Your task to perform on an android device: Search for a 3d printer on aliexpress Image 0: 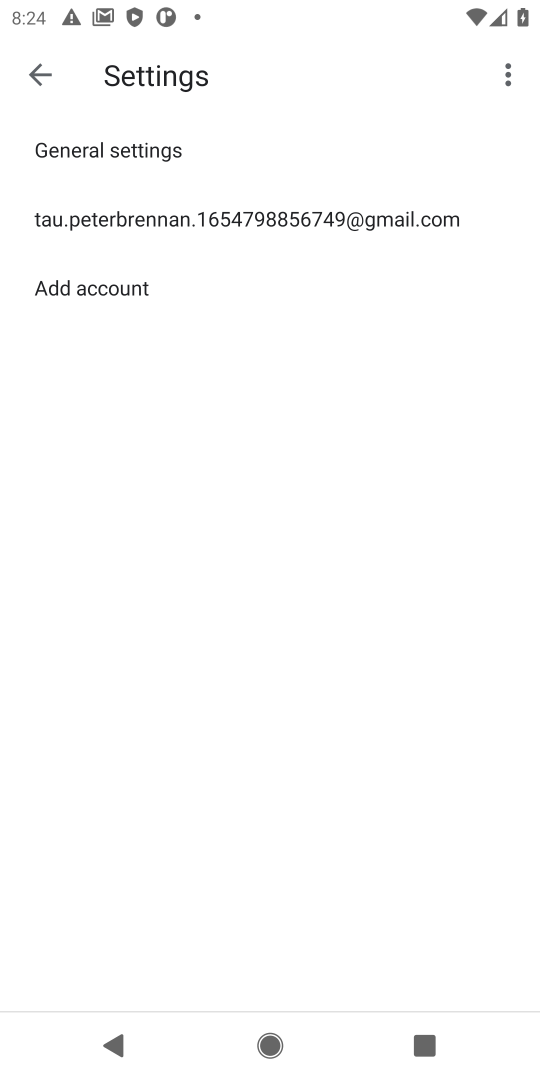
Step 0: press home button
Your task to perform on an android device: Search for a 3d printer on aliexpress Image 1: 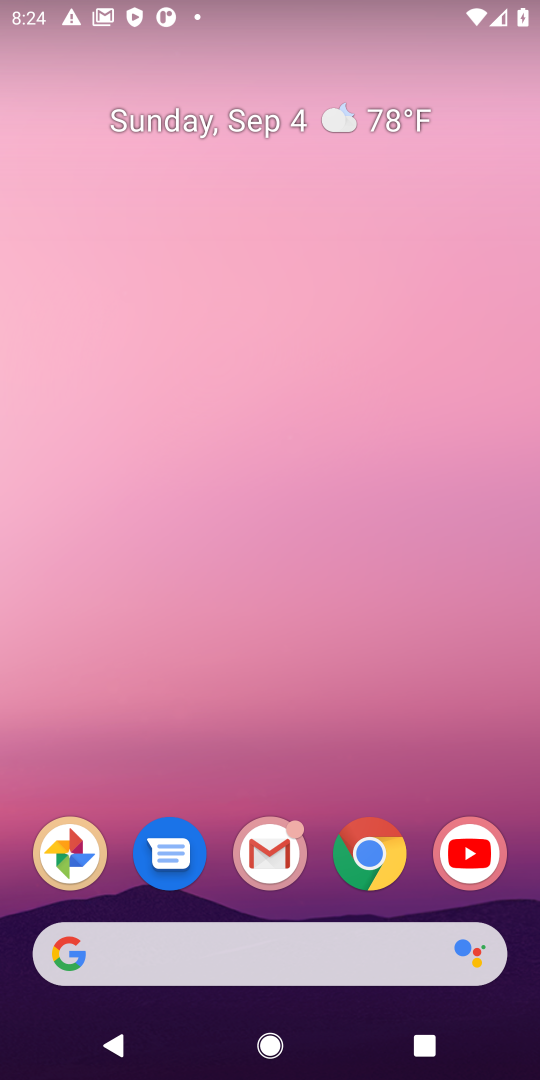
Step 1: drag from (314, 642) to (363, 0)
Your task to perform on an android device: Search for a 3d printer on aliexpress Image 2: 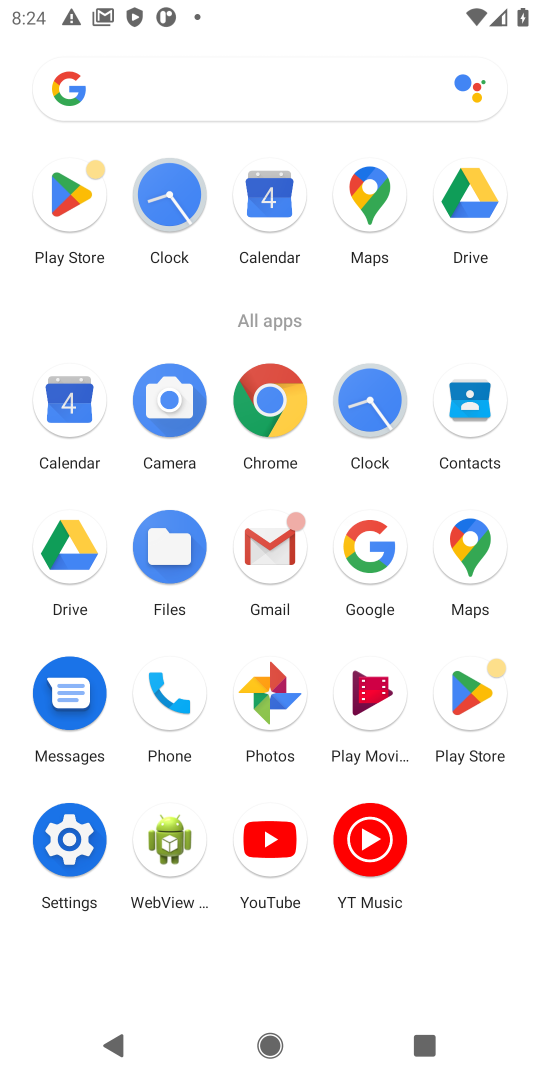
Step 2: click (265, 398)
Your task to perform on an android device: Search for a 3d printer on aliexpress Image 3: 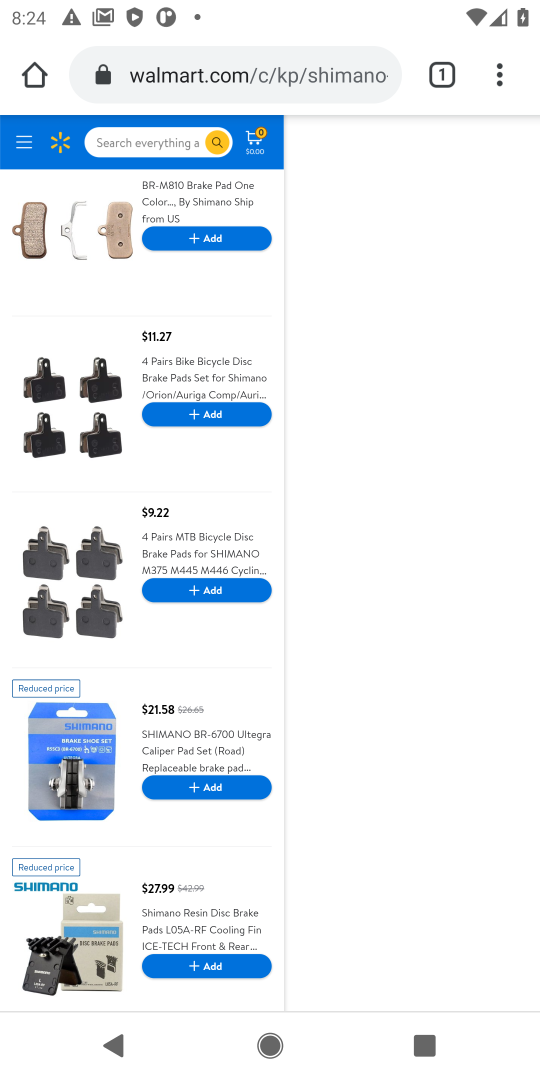
Step 3: click (434, 63)
Your task to perform on an android device: Search for a 3d printer on aliexpress Image 4: 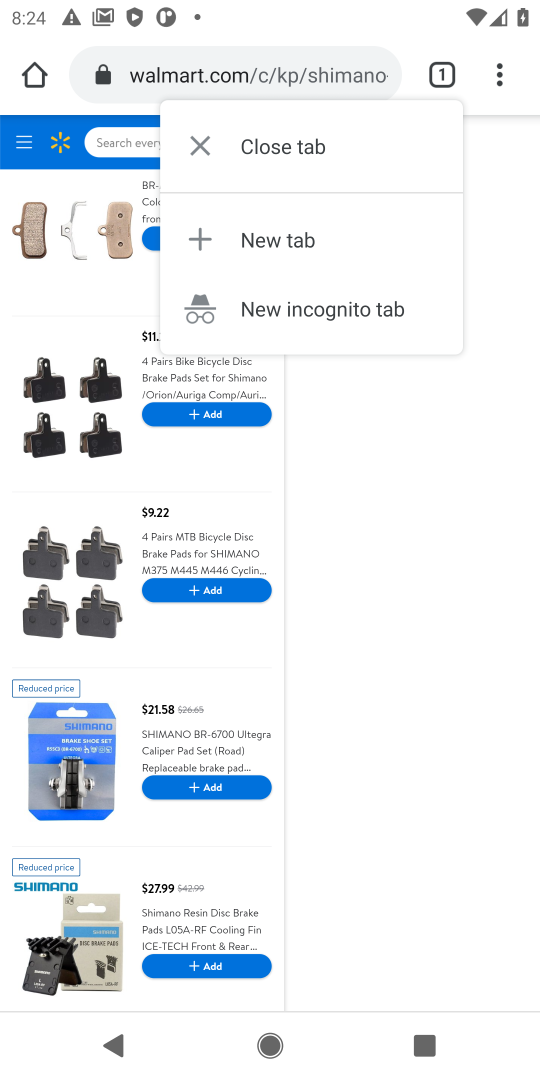
Step 4: click (255, 227)
Your task to perform on an android device: Search for a 3d printer on aliexpress Image 5: 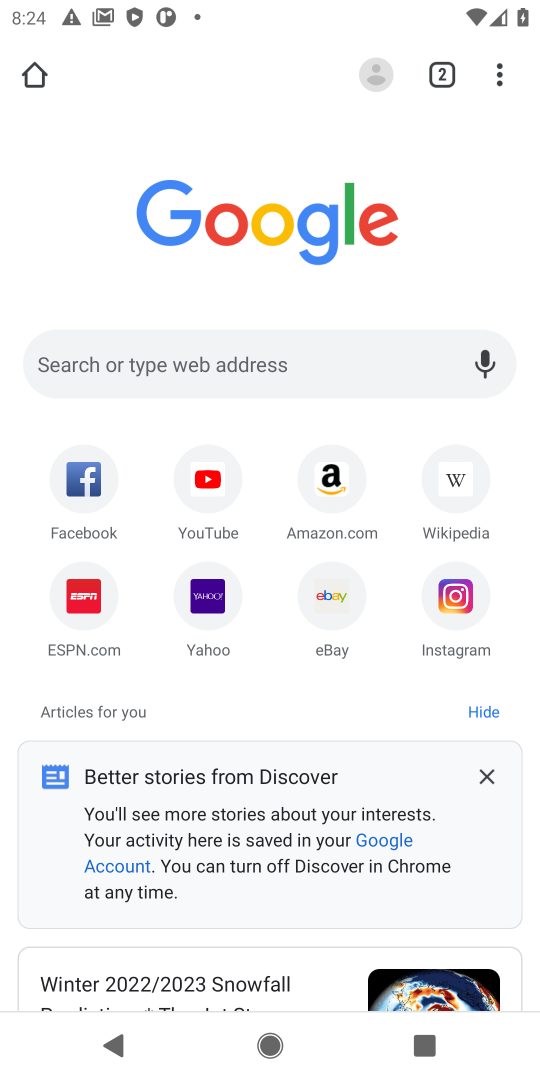
Step 5: click (136, 356)
Your task to perform on an android device: Search for a 3d printer on aliexpress Image 6: 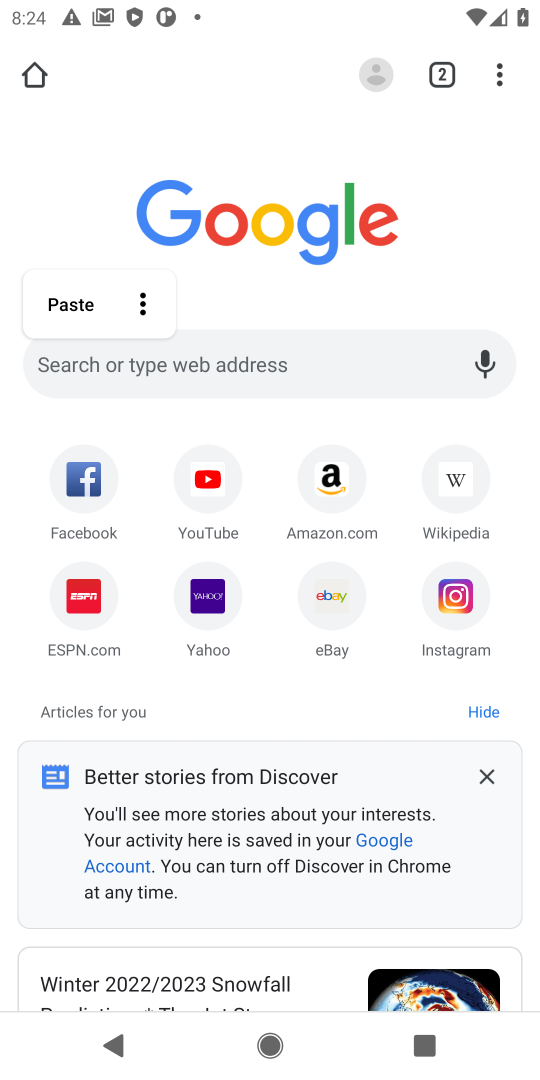
Step 6: type "3d printer on aliexpress"
Your task to perform on an android device: Search for a 3d printer on aliexpress Image 7: 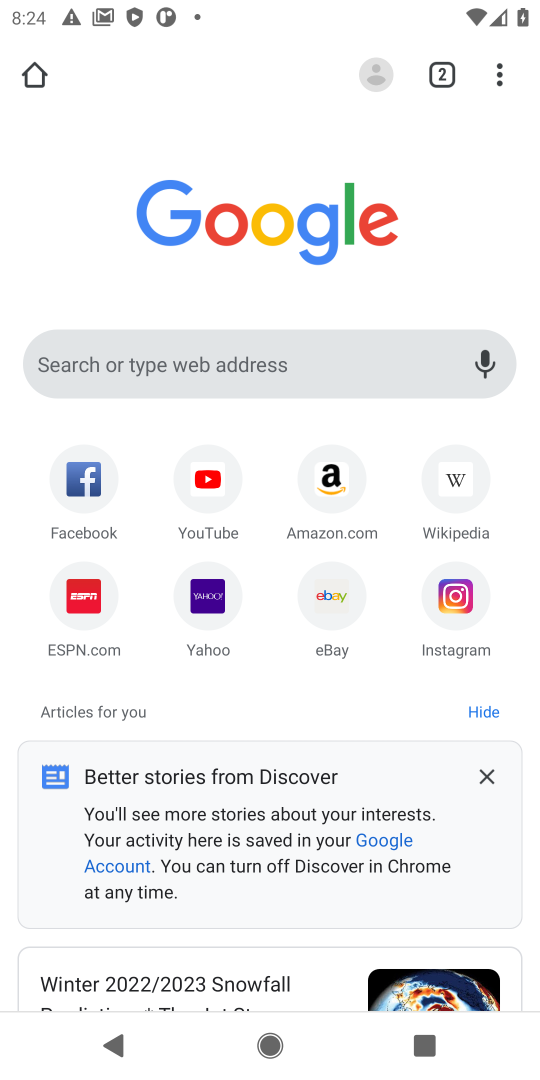
Step 7: click (95, 358)
Your task to perform on an android device: Search for a 3d printer on aliexpress Image 8: 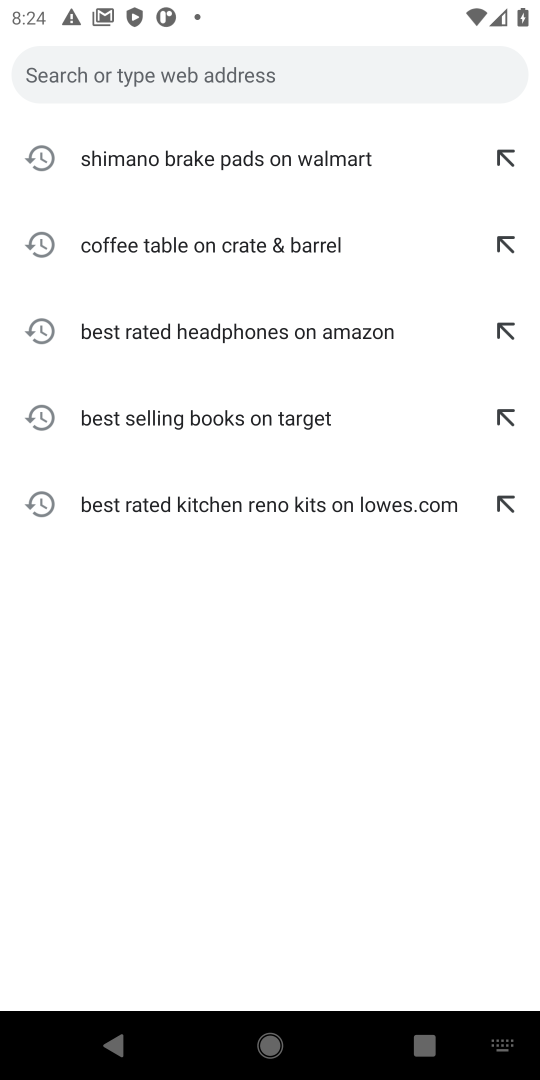
Step 8: type "3d printer on aliexpress"
Your task to perform on an android device: Search for a 3d printer on aliexpress Image 9: 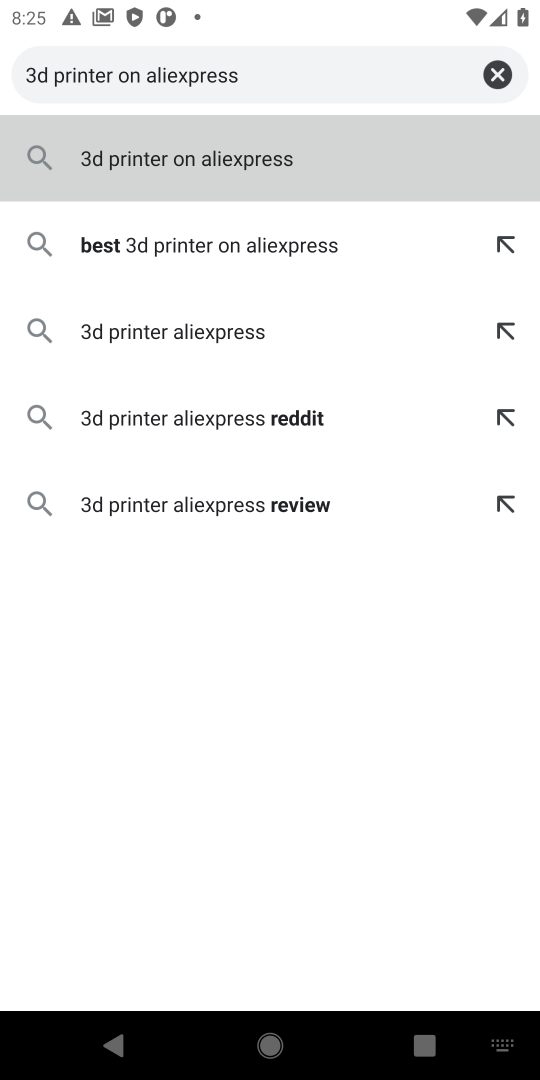
Step 9: click (182, 171)
Your task to perform on an android device: Search for a 3d printer on aliexpress Image 10: 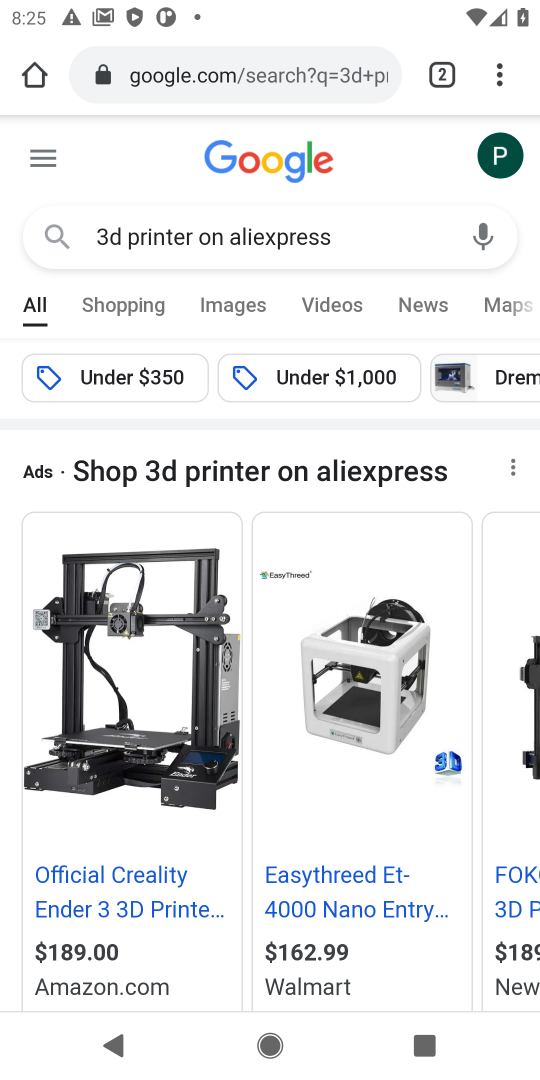
Step 10: drag from (231, 858) to (246, 269)
Your task to perform on an android device: Search for a 3d printer on aliexpress Image 11: 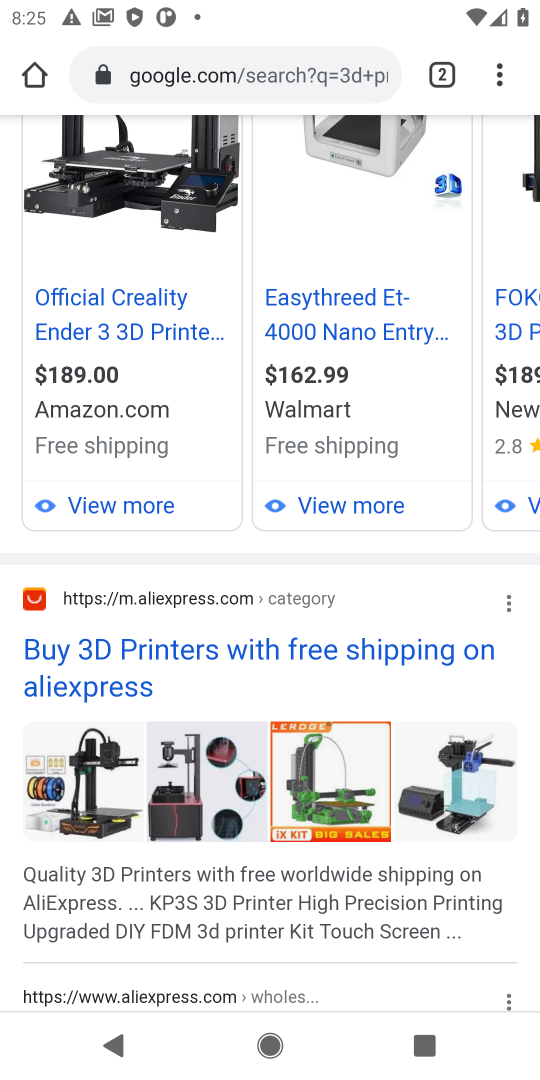
Step 11: click (174, 647)
Your task to perform on an android device: Search for a 3d printer on aliexpress Image 12: 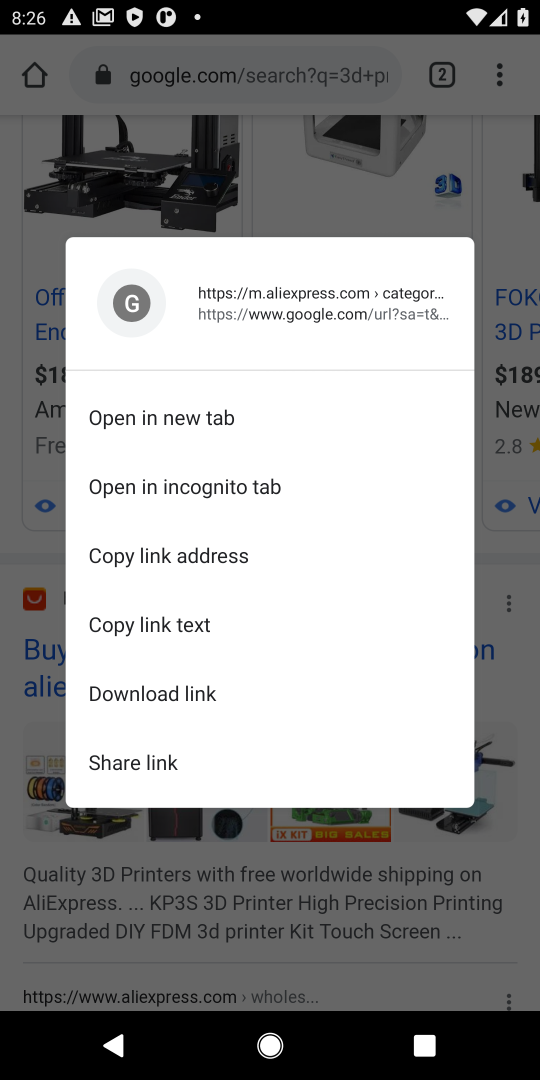
Step 12: click (175, 969)
Your task to perform on an android device: Search for a 3d printer on aliexpress Image 13: 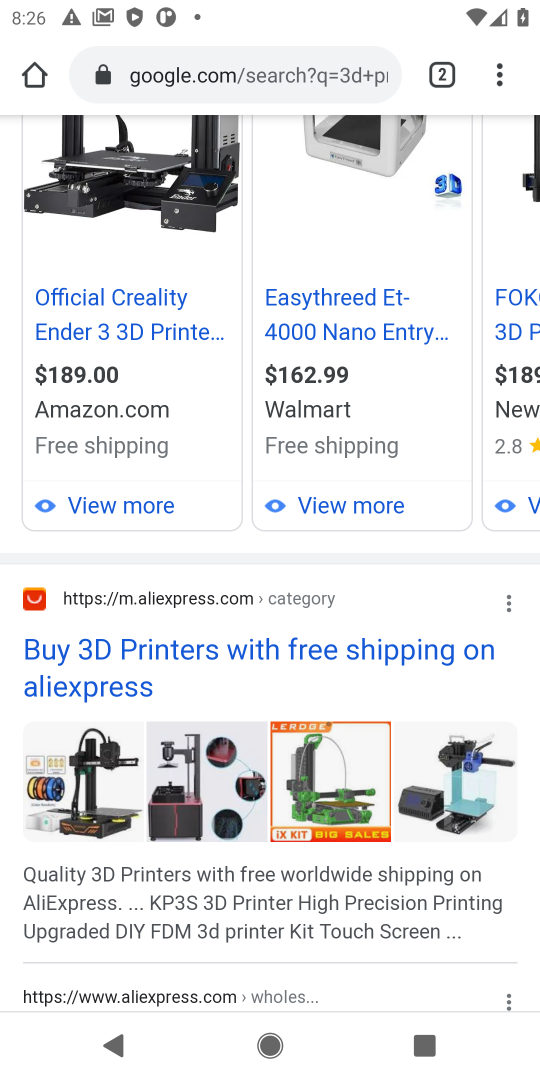
Step 13: click (56, 650)
Your task to perform on an android device: Search for a 3d printer on aliexpress Image 14: 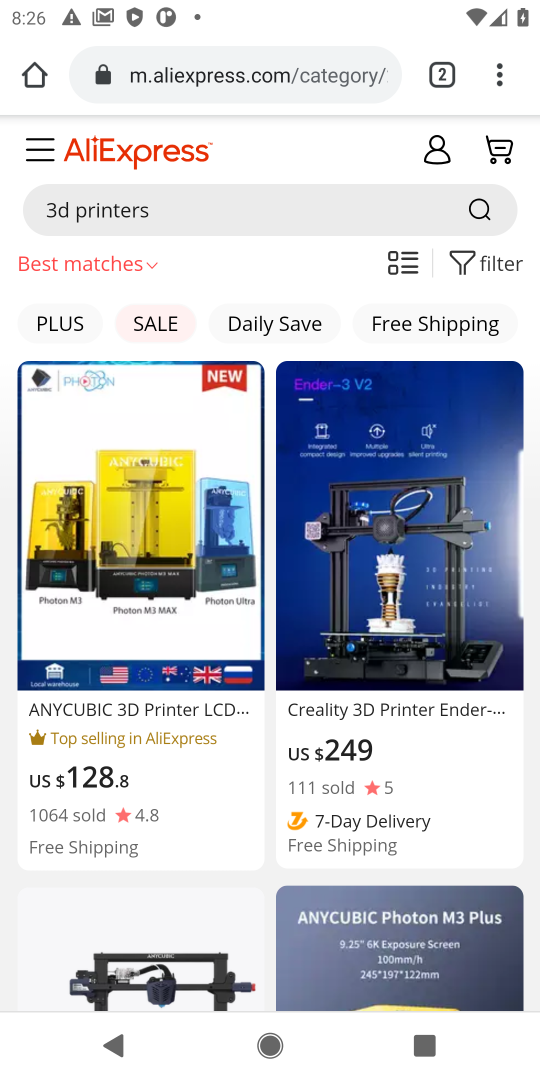
Step 14: drag from (254, 962) to (278, 350)
Your task to perform on an android device: Search for a 3d printer on aliexpress Image 15: 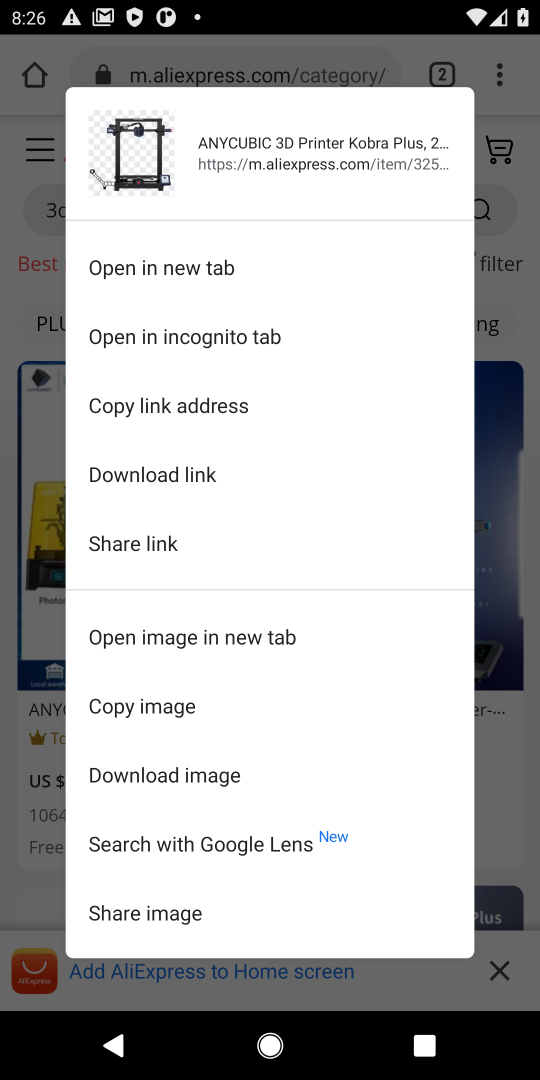
Step 15: click (13, 706)
Your task to perform on an android device: Search for a 3d printer on aliexpress Image 16: 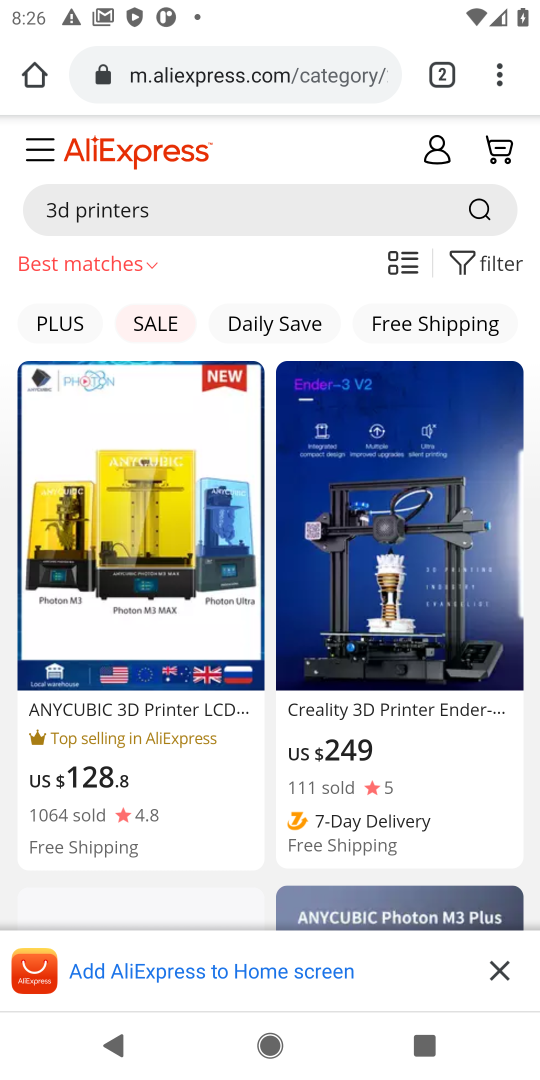
Step 16: drag from (270, 648) to (266, 313)
Your task to perform on an android device: Search for a 3d printer on aliexpress Image 17: 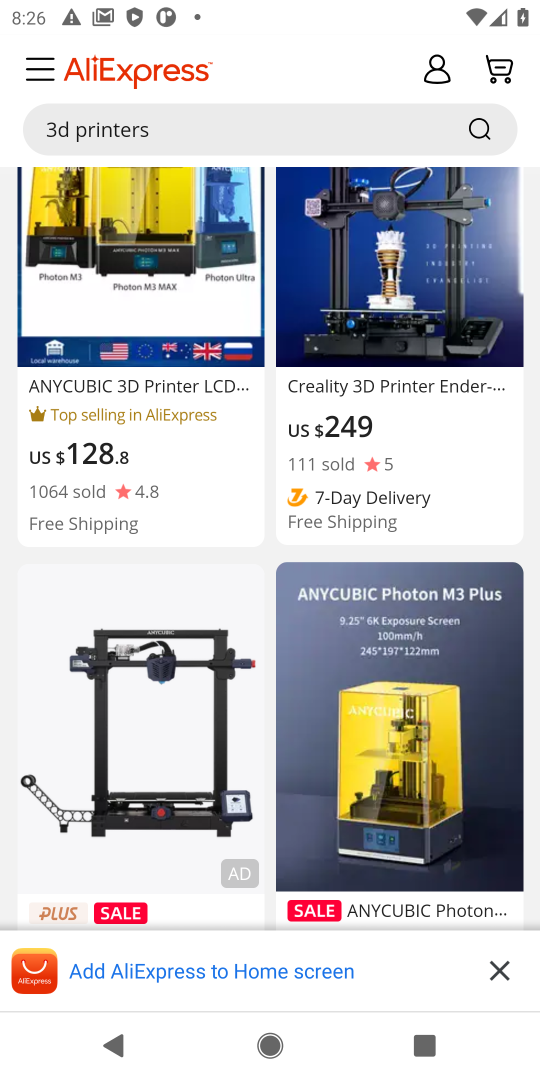
Step 17: drag from (262, 769) to (238, 594)
Your task to perform on an android device: Search for a 3d printer on aliexpress Image 18: 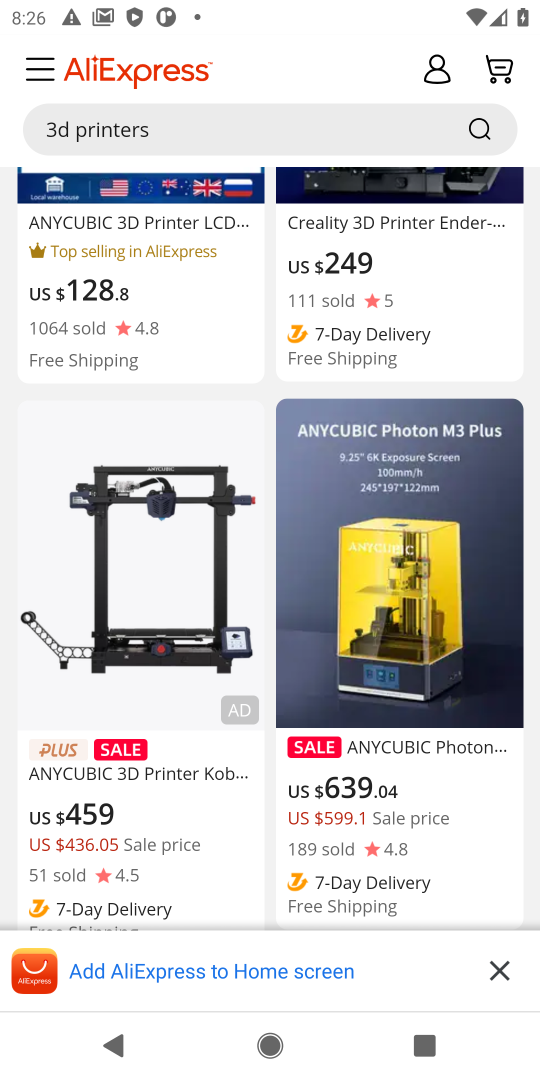
Step 18: drag from (266, 837) to (234, 310)
Your task to perform on an android device: Search for a 3d printer on aliexpress Image 19: 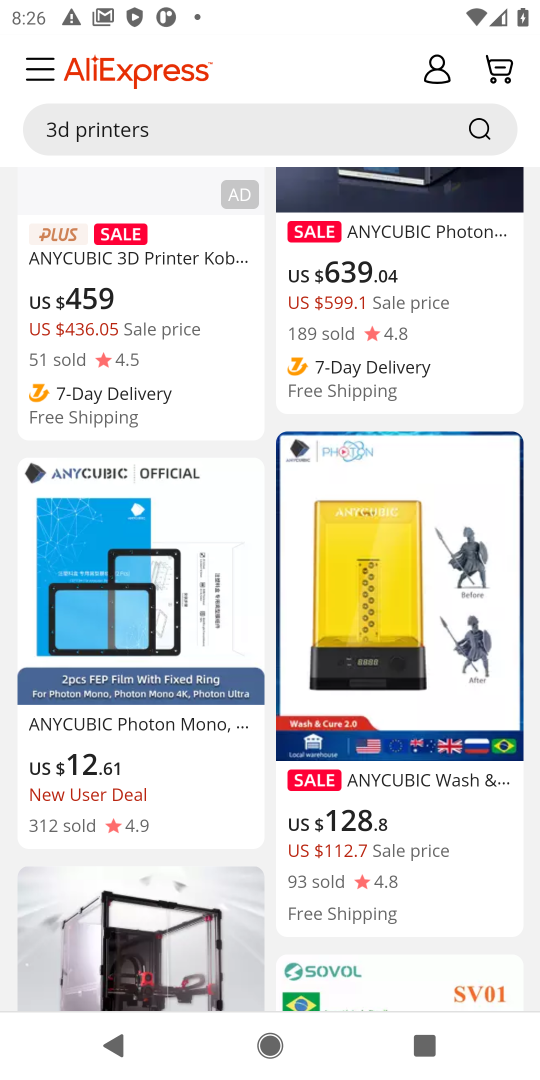
Step 19: drag from (266, 321) to (299, 1002)
Your task to perform on an android device: Search for a 3d printer on aliexpress Image 20: 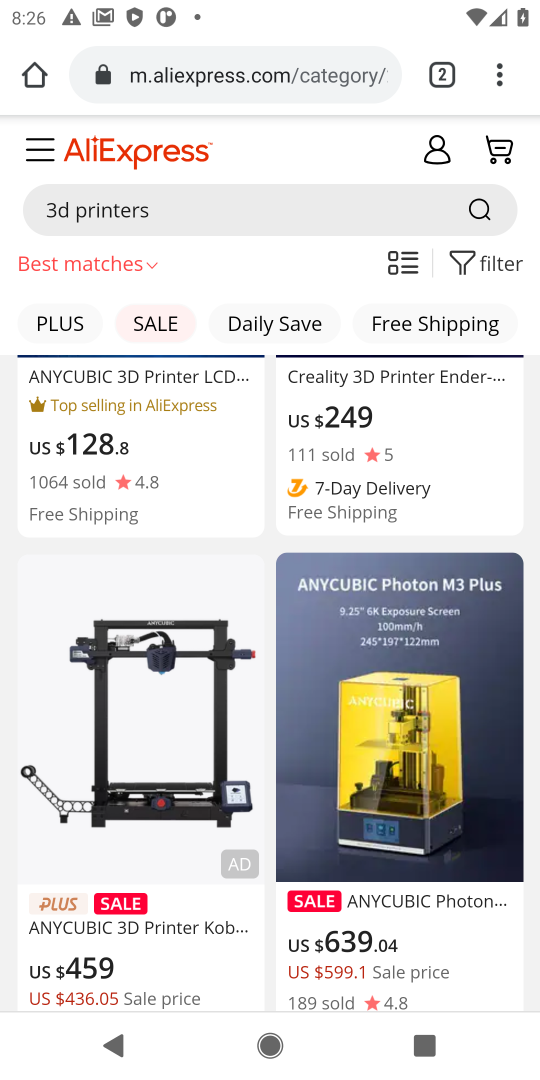
Step 20: click (473, 206)
Your task to perform on an android device: Search for a 3d printer on aliexpress Image 21: 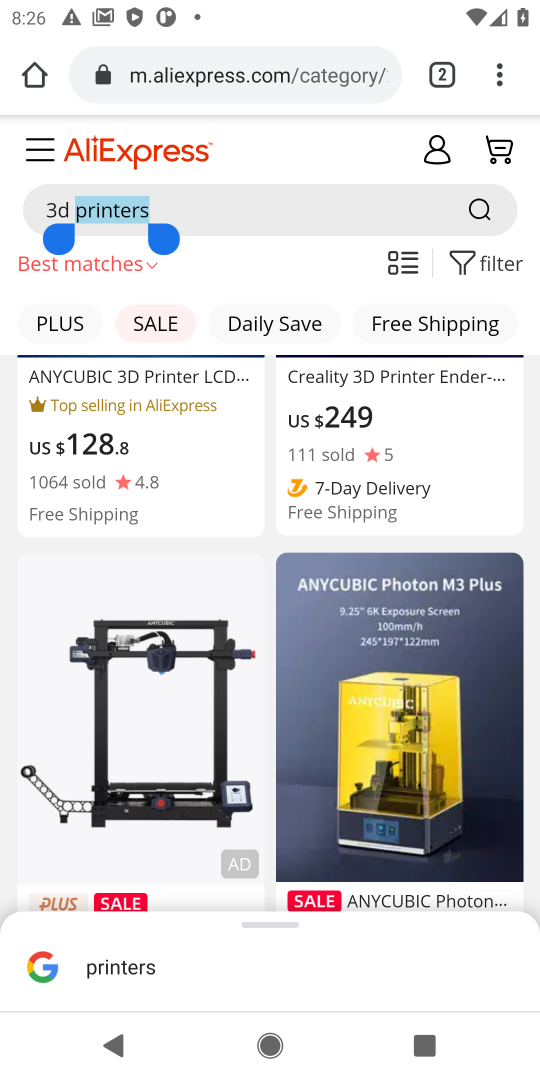
Step 21: click (168, 214)
Your task to perform on an android device: Search for a 3d printer on aliexpress Image 22: 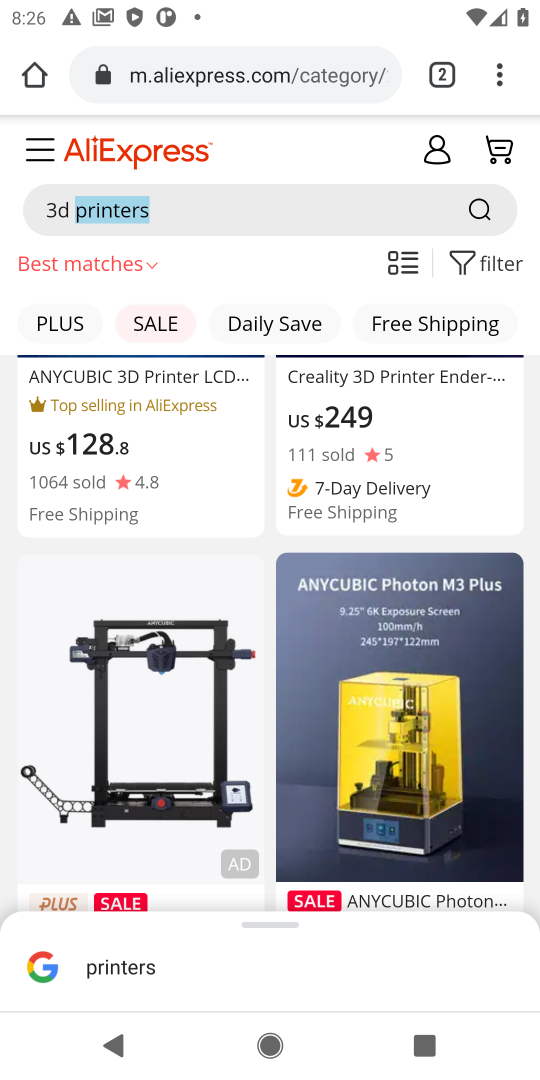
Step 22: click (477, 205)
Your task to perform on an android device: Search for a 3d printer on aliexpress Image 23: 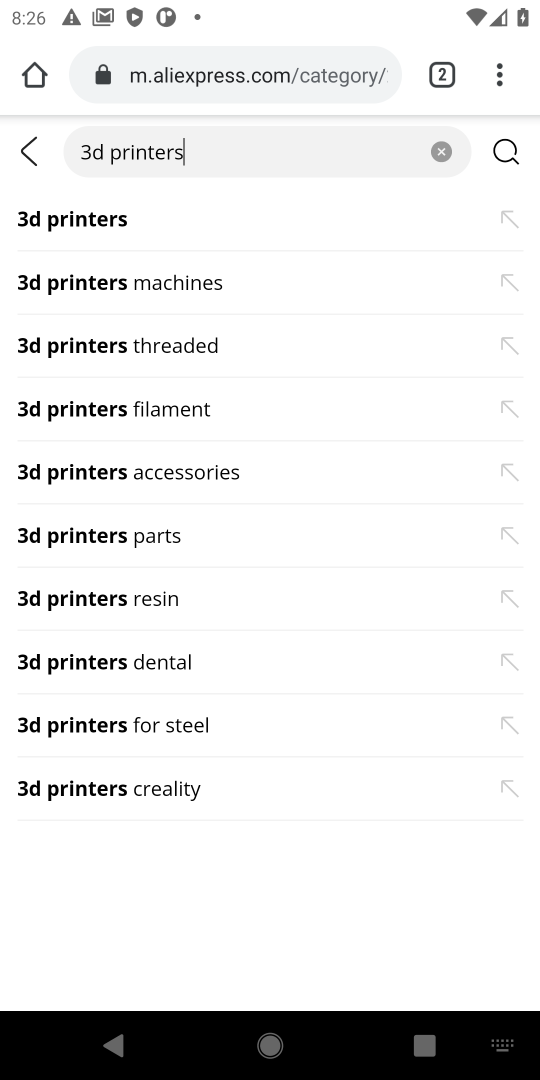
Step 23: click (118, 216)
Your task to perform on an android device: Search for a 3d printer on aliexpress Image 24: 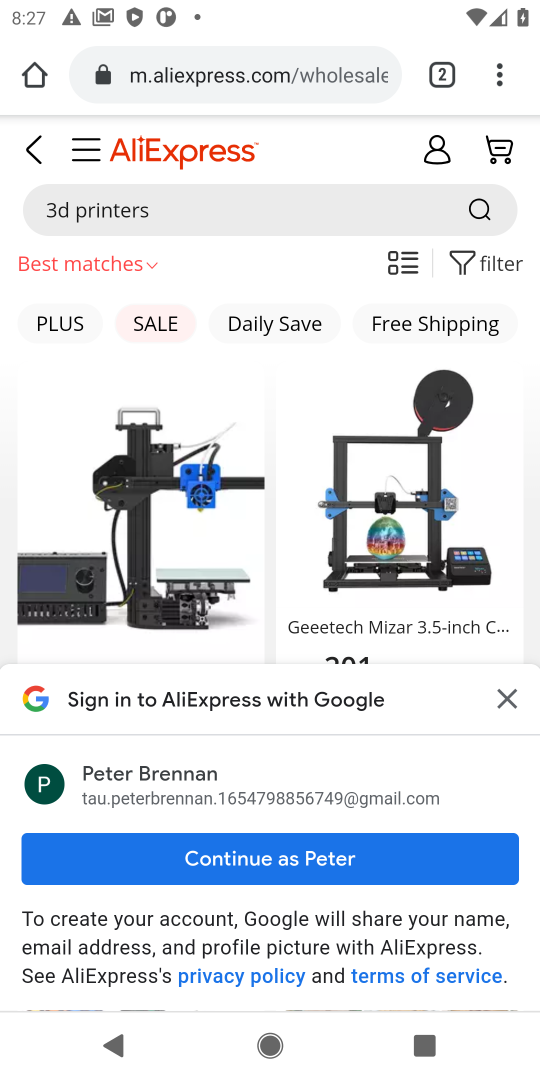
Step 24: click (258, 860)
Your task to perform on an android device: Search for a 3d printer on aliexpress Image 25: 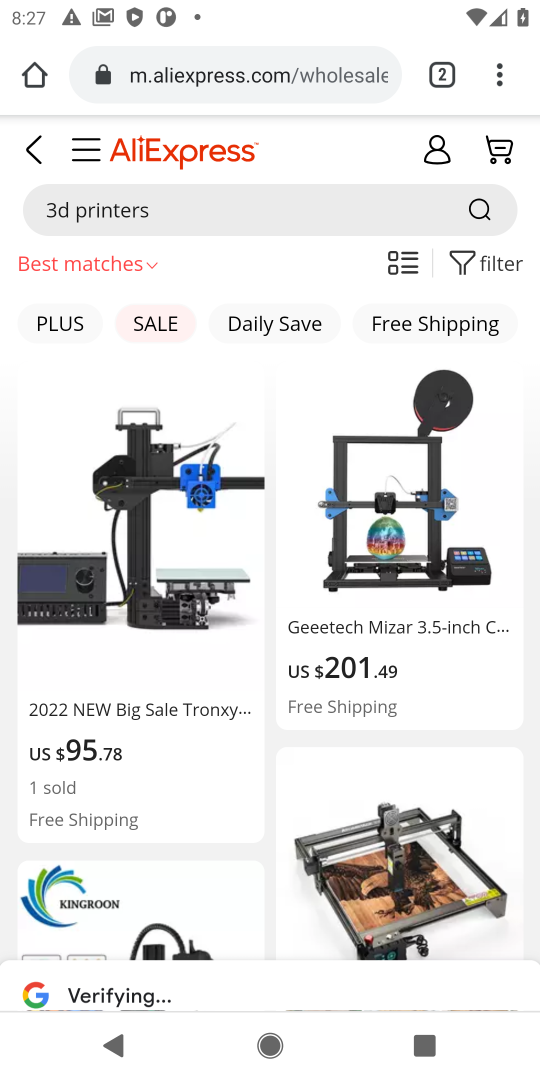
Step 25: task complete